Your task to perform on an android device: clear all cookies in the chrome app Image 0: 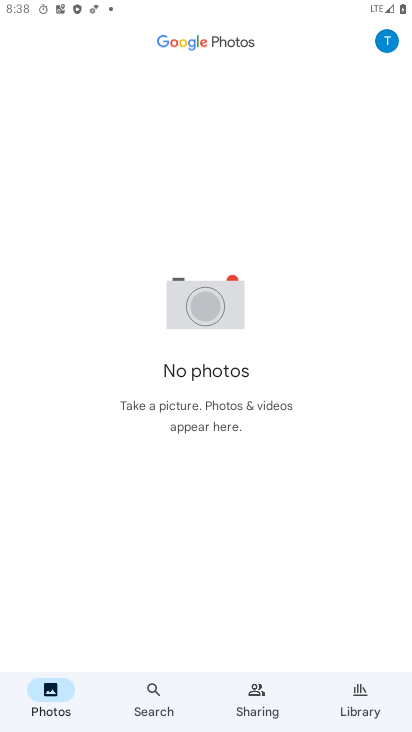
Step 0: press home button
Your task to perform on an android device: clear all cookies in the chrome app Image 1: 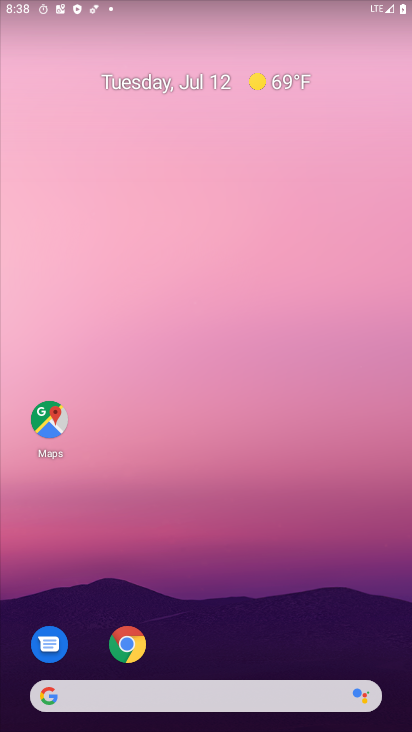
Step 1: click (123, 637)
Your task to perform on an android device: clear all cookies in the chrome app Image 2: 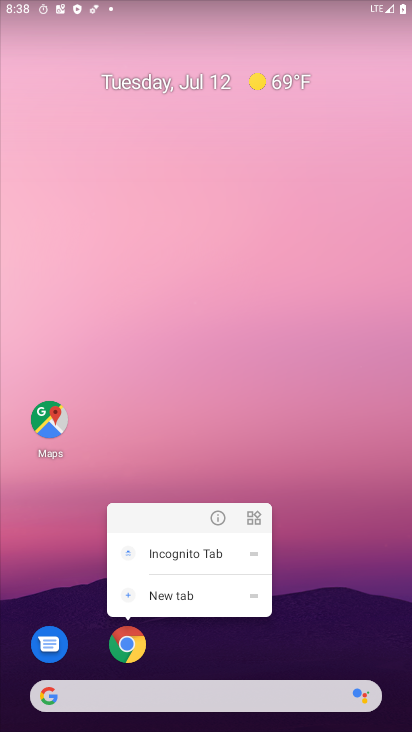
Step 2: click (123, 637)
Your task to perform on an android device: clear all cookies in the chrome app Image 3: 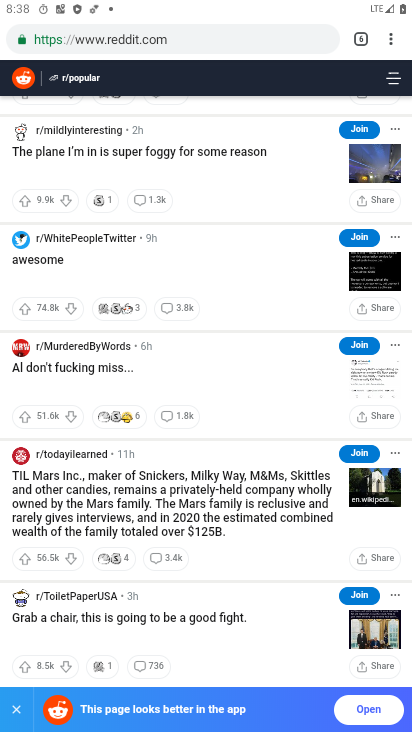
Step 3: click (394, 37)
Your task to perform on an android device: clear all cookies in the chrome app Image 4: 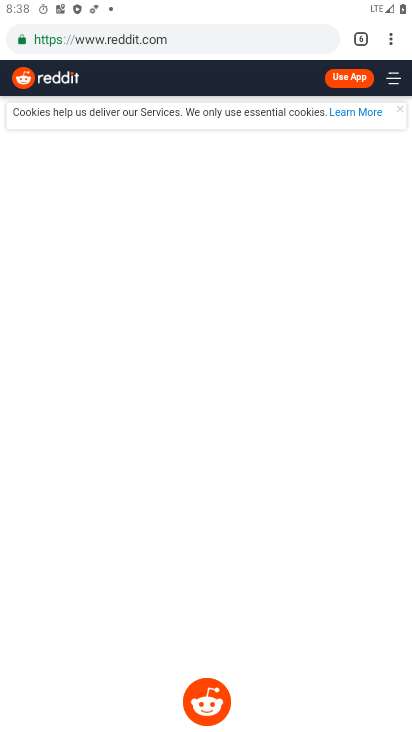
Step 4: click (394, 37)
Your task to perform on an android device: clear all cookies in the chrome app Image 5: 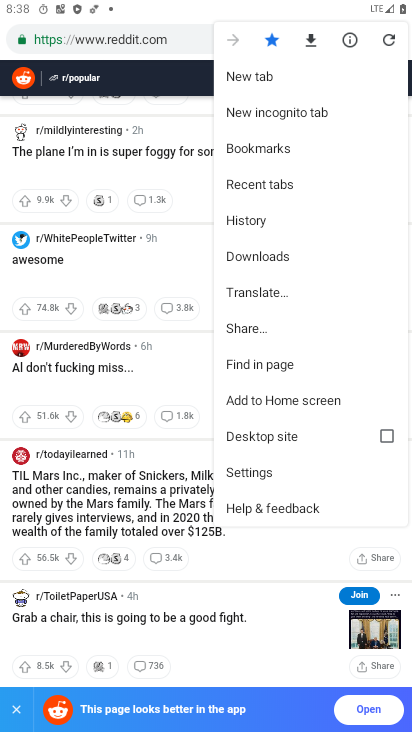
Step 5: click (271, 215)
Your task to perform on an android device: clear all cookies in the chrome app Image 6: 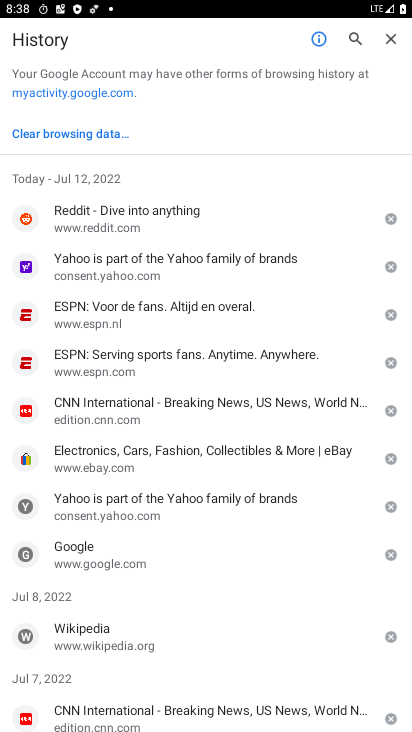
Step 6: click (72, 131)
Your task to perform on an android device: clear all cookies in the chrome app Image 7: 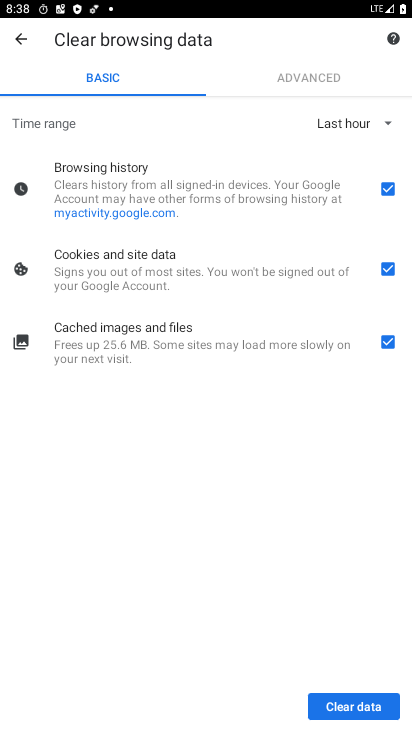
Step 7: click (385, 120)
Your task to perform on an android device: clear all cookies in the chrome app Image 8: 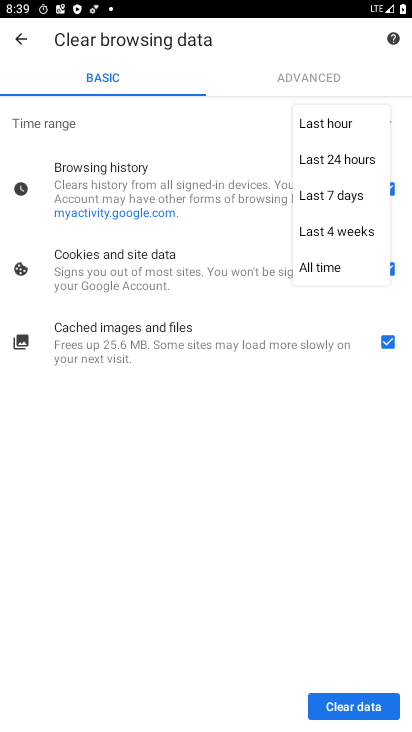
Step 8: click (341, 264)
Your task to perform on an android device: clear all cookies in the chrome app Image 9: 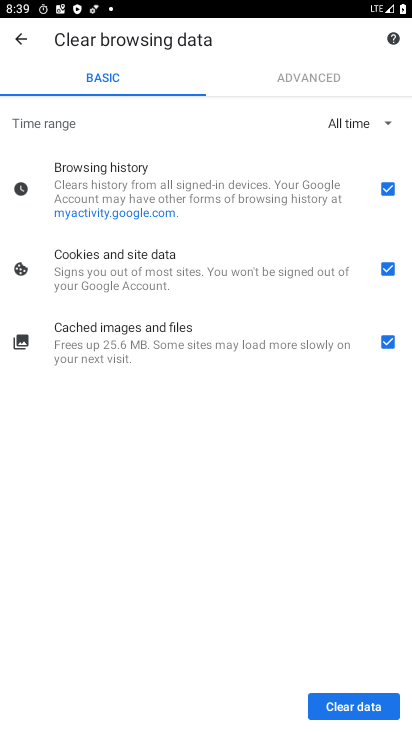
Step 9: click (351, 706)
Your task to perform on an android device: clear all cookies in the chrome app Image 10: 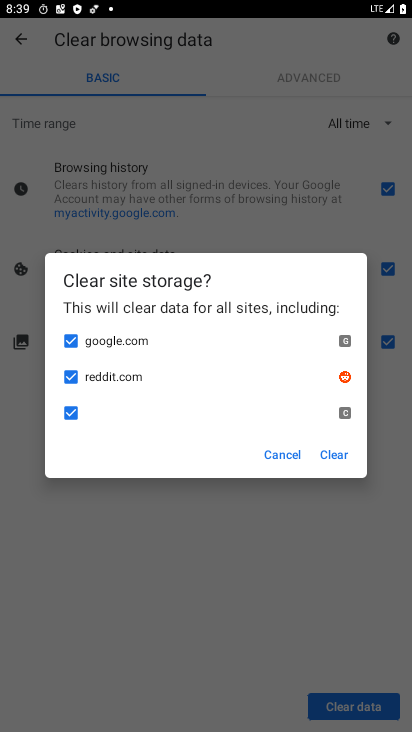
Step 10: click (338, 448)
Your task to perform on an android device: clear all cookies in the chrome app Image 11: 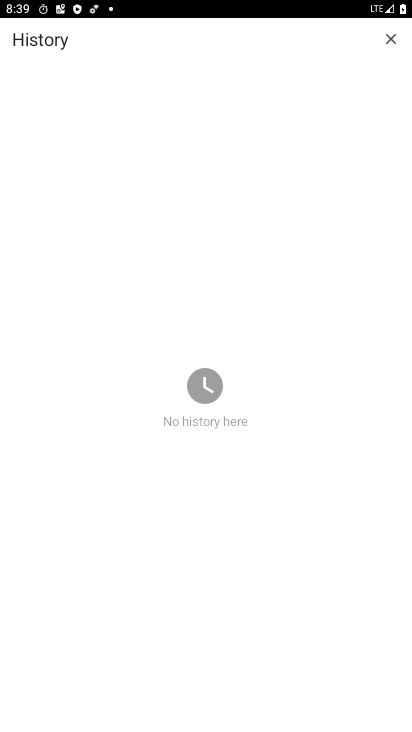
Step 11: task complete